Your task to perform on an android device: Open Chrome and go to settings Image 0: 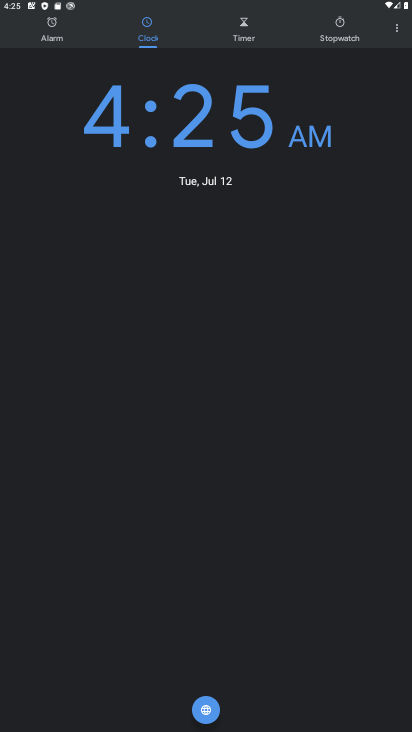
Step 0: press home button
Your task to perform on an android device: Open Chrome and go to settings Image 1: 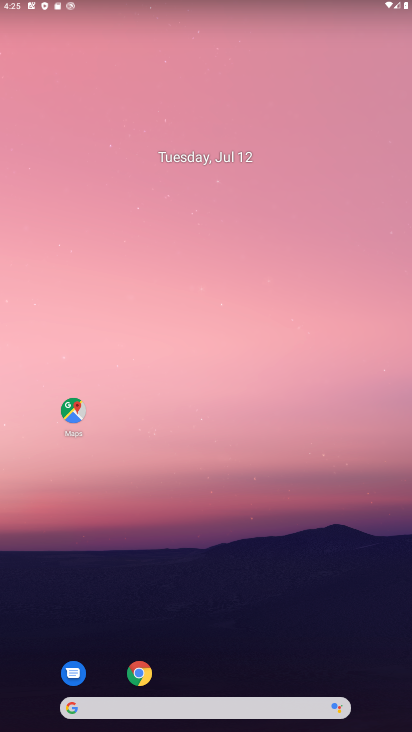
Step 1: drag from (171, 684) to (225, 216)
Your task to perform on an android device: Open Chrome and go to settings Image 2: 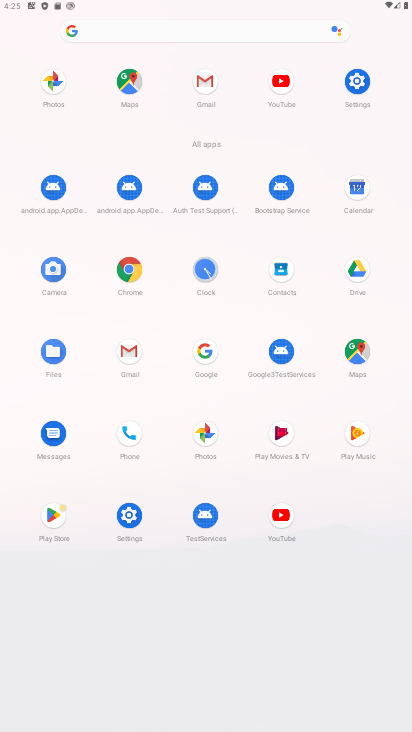
Step 2: click (140, 263)
Your task to perform on an android device: Open Chrome and go to settings Image 3: 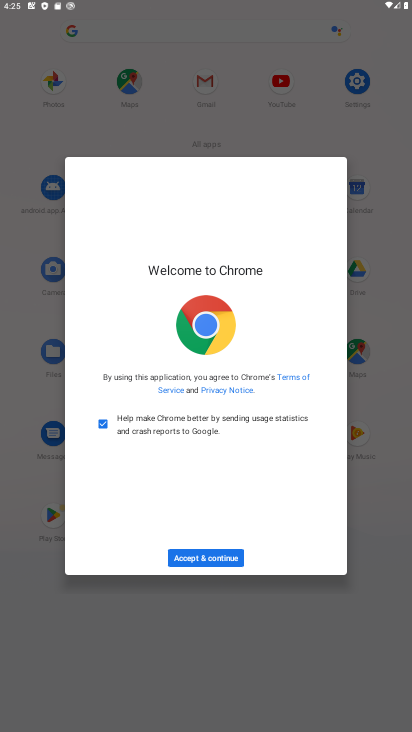
Step 3: click (235, 549)
Your task to perform on an android device: Open Chrome and go to settings Image 4: 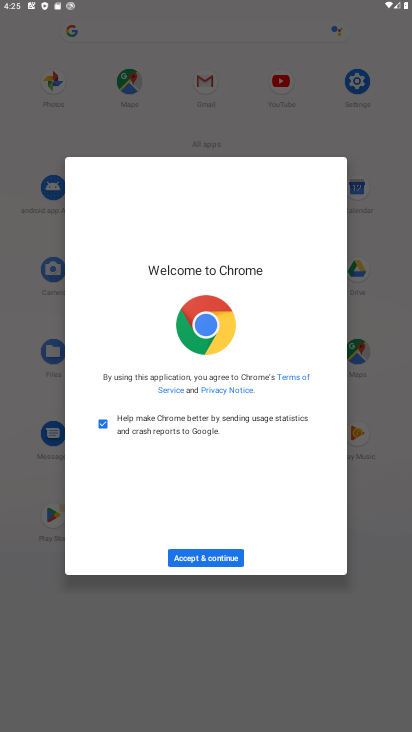
Step 4: click (218, 556)
Your task to perform on an android device: Open Chrome and go to settings Image 5: 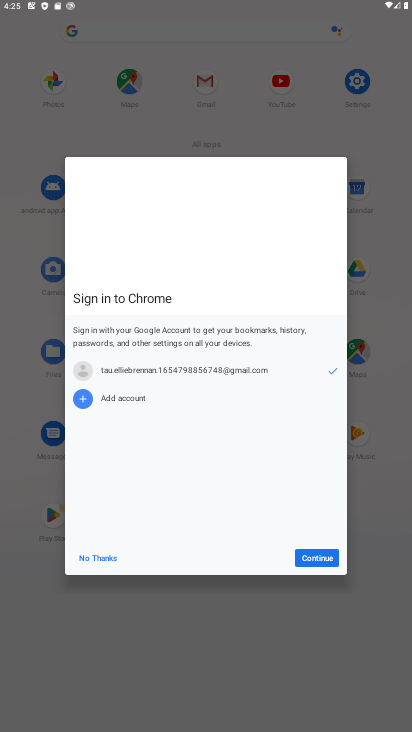
Step 5: click (315, 547)
Your task to perform on an android device: Open Chrome and go to settings Image 6: 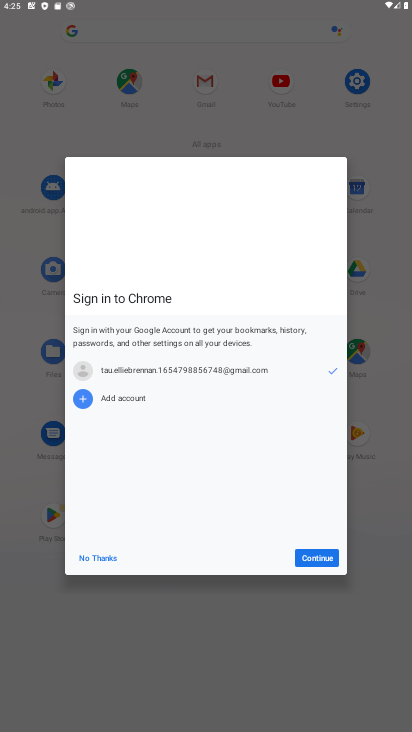
Step 6: click (315, 553)
Your task to perform on an android device: Open Chrome and go to settings Image 7: 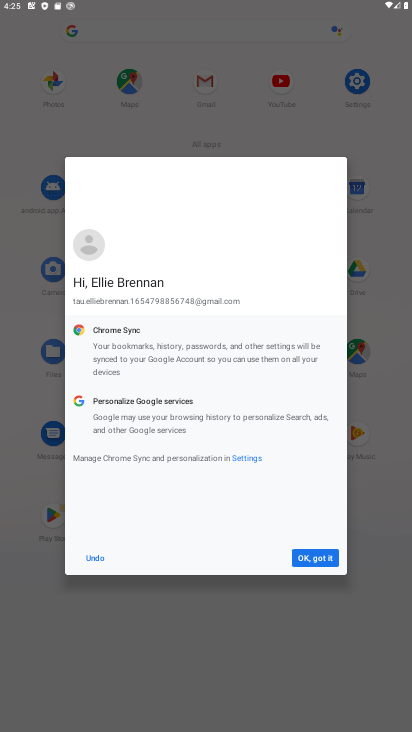
Step 7: click (318, 553)
Your task to perform on an android device: Open Chrome and go to settings Image 8: 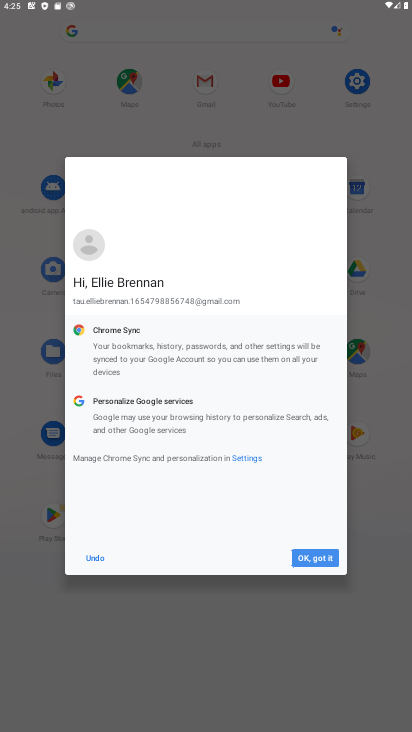
Step 8: click (319, 553)
Your task to perform on an android device: Open Chrome and go to settings Image 9: 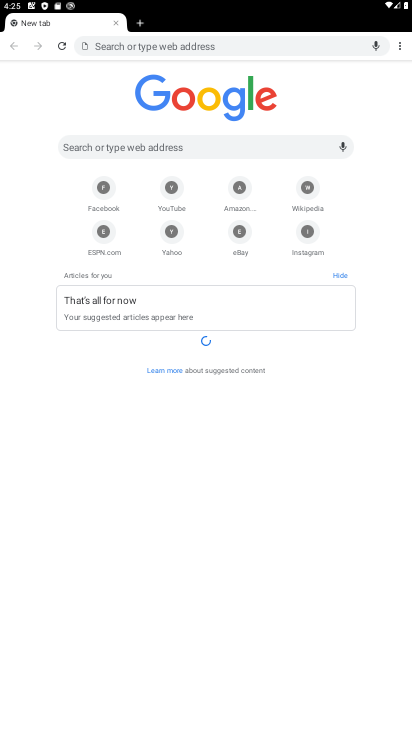
Step 9: task complete